Your task to perform on an android device: visit the assistant section in the google photos Image 0: 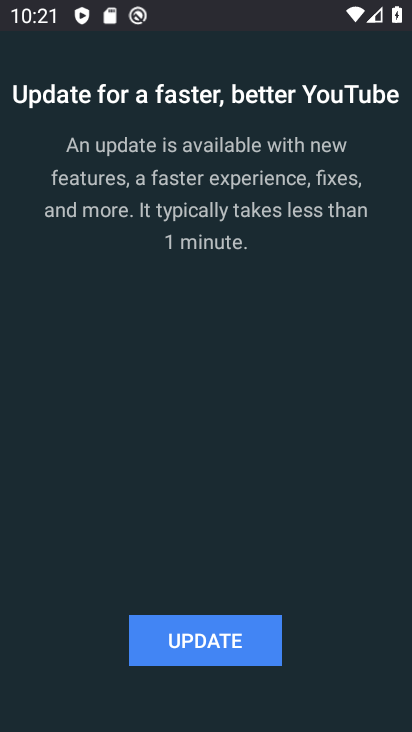
Step 0: press home button
Your task to perform on an android device: visit the assistant section in the google photos Image 1: 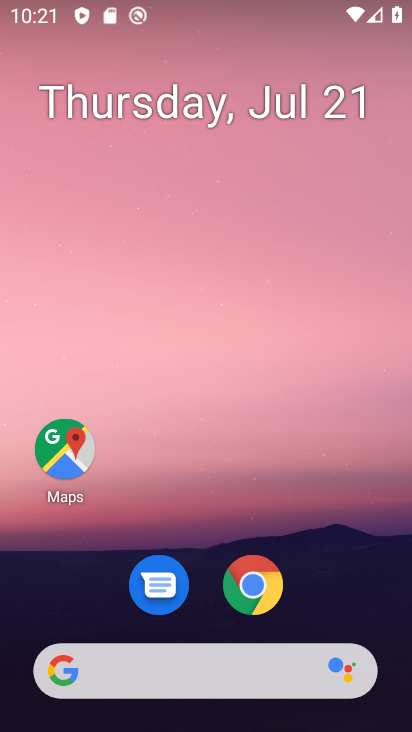
Step 1: drag from (157, 678) to (308, 156)
Your task to perform on an android device: visit the assistant section in the google photos Image 2: 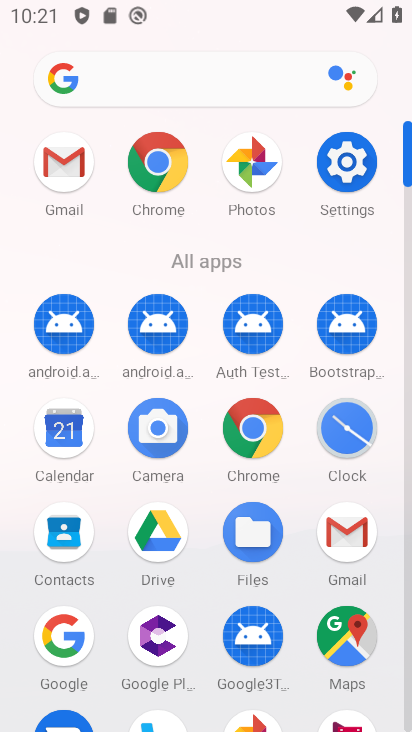
Step 2: drag from (195, 576) to (314, 113)
Your task to perform on an android device: visit the assistant section in the google photos Image 3: 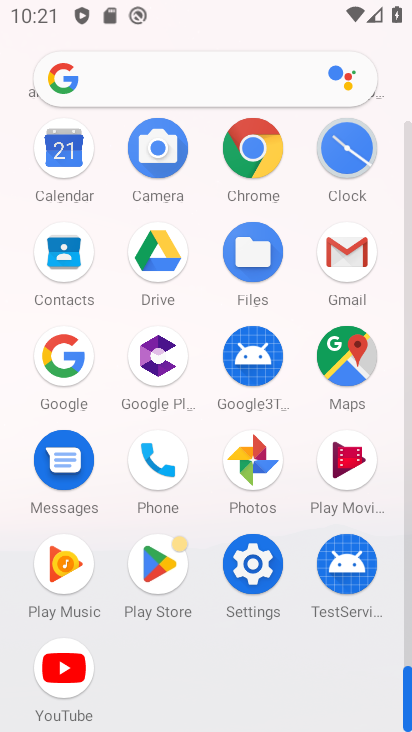
Step 3: click (252, 464)
Your task to perform on an android device: visit the assistant section in the google photos Image 4: 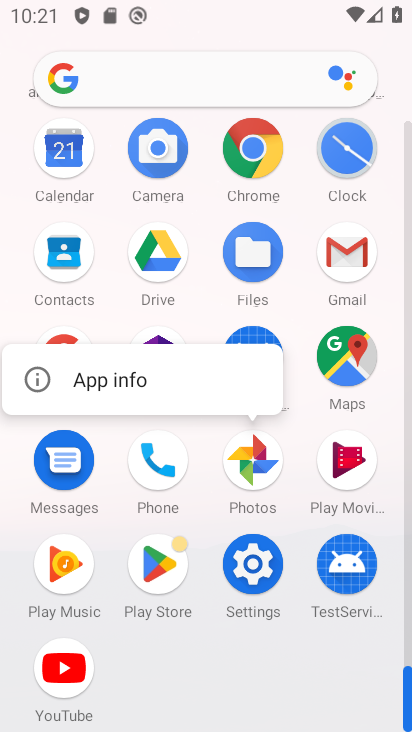
Step 4: click (252, 464)
Your task to perform on an android device: visit the assistant section in the google photos Image 5: 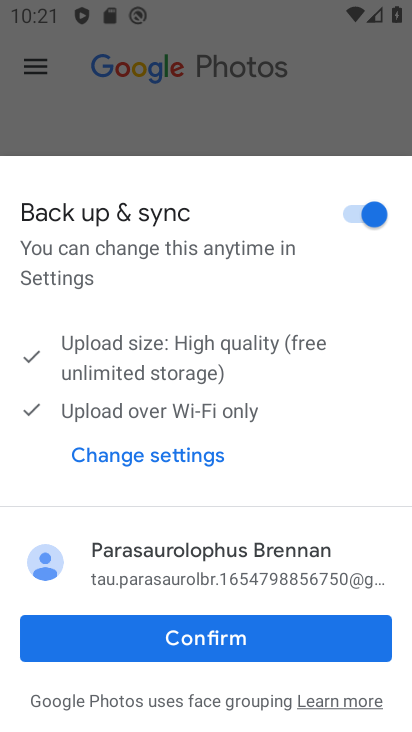
Step 5: click (236, 634)
Your task to perform on an android device: visit the assistant section in the google photos Image 6: 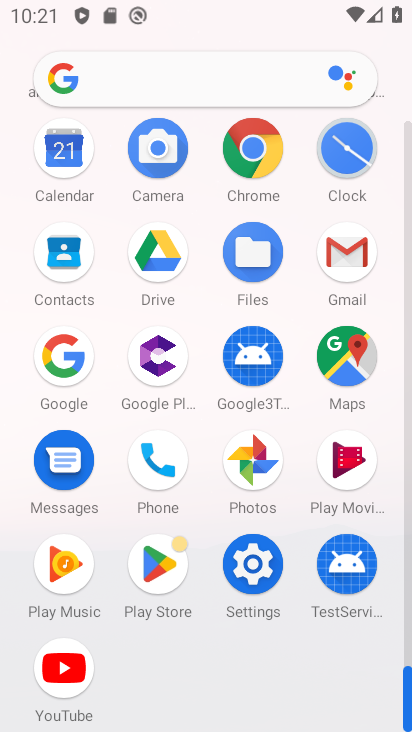
Step 6: click (250, 465)
Your task to perform on an android device: visit the assistant section in the google photos Image 7: 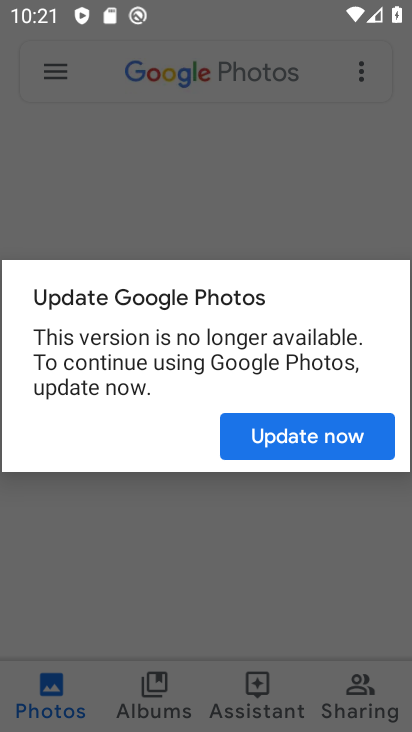
Step 7: click (313, 429)
Your task to perform on an android device: visit the assistant section in the google photos Image 8: 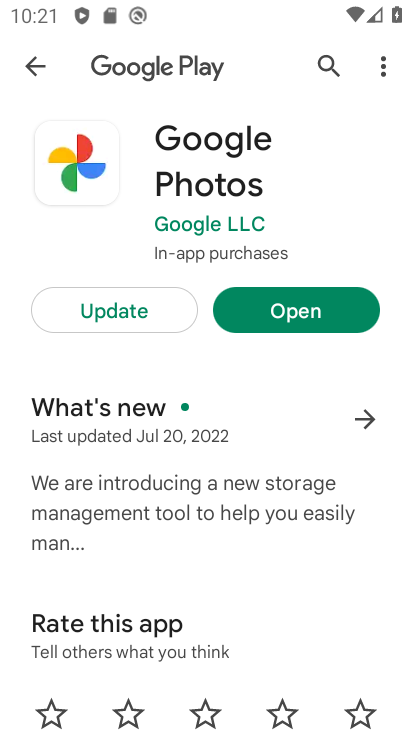
Step 8: click (308, 308)
Your task to perform on an android device: visit the assistant section in the google photos Image 9: 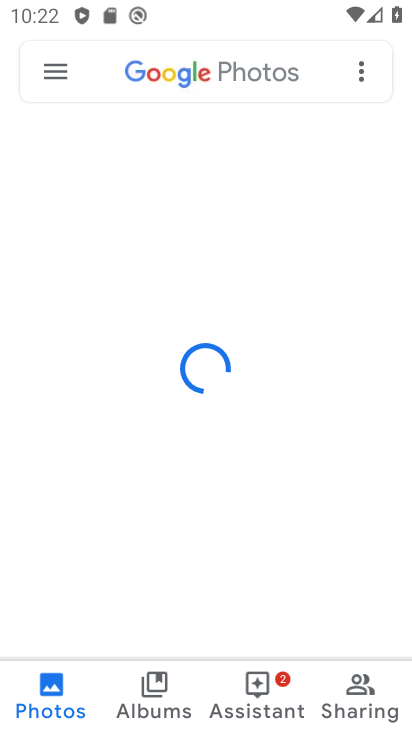
Step 9: click (273, 688)
Your task to perform on an android device: visit the assistant section in the google photos Image 10: 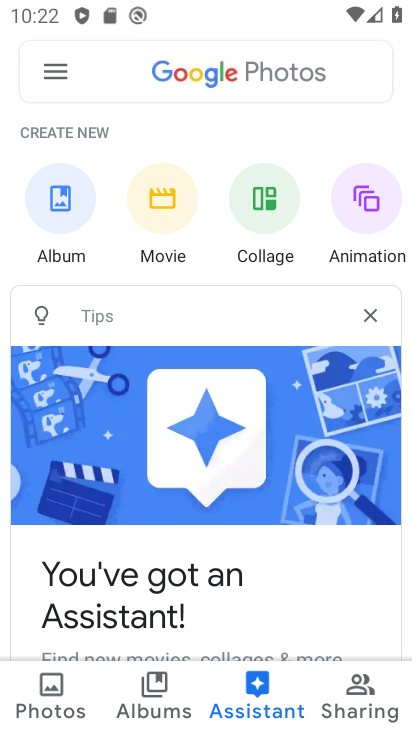
Step 10: task complete